Your task to perform on an android device: Open Youtube and go to "Your channel" Image 0: 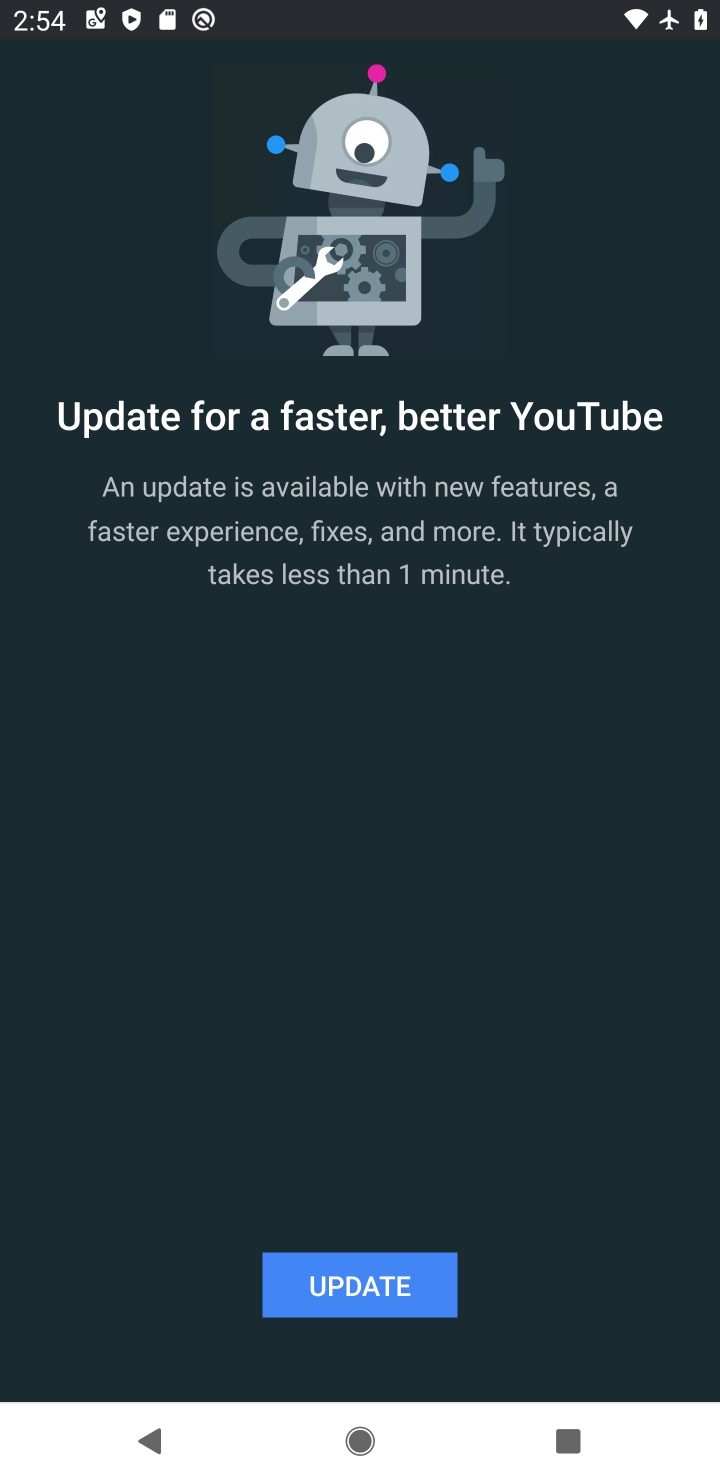
Step 0: press home button
Your task to perform on an android device: Open Youtube and go to "Your channel" Image 1: 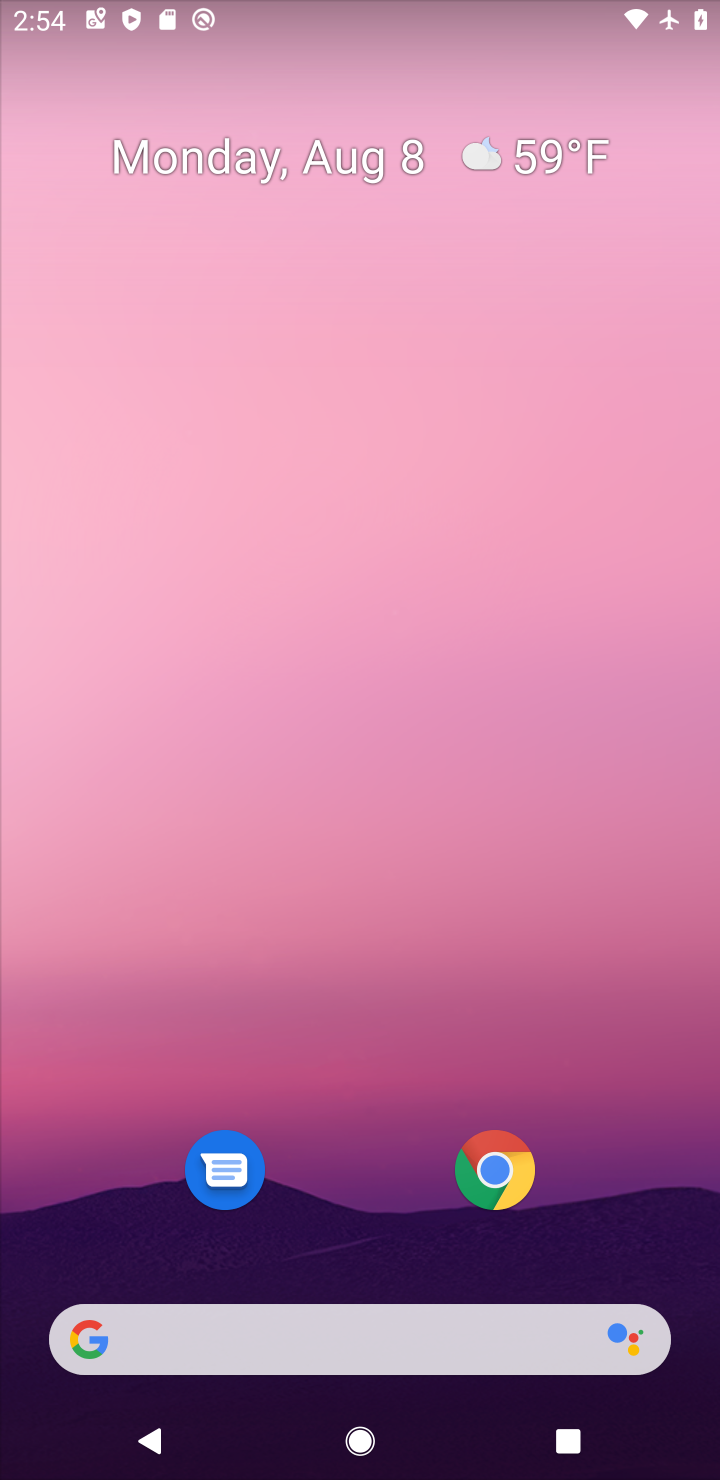
Step 1: drag from (373, 784) to (390, 360)
Your task to perform on an android device: Open Youtube and go to "Your channel" Image 2: 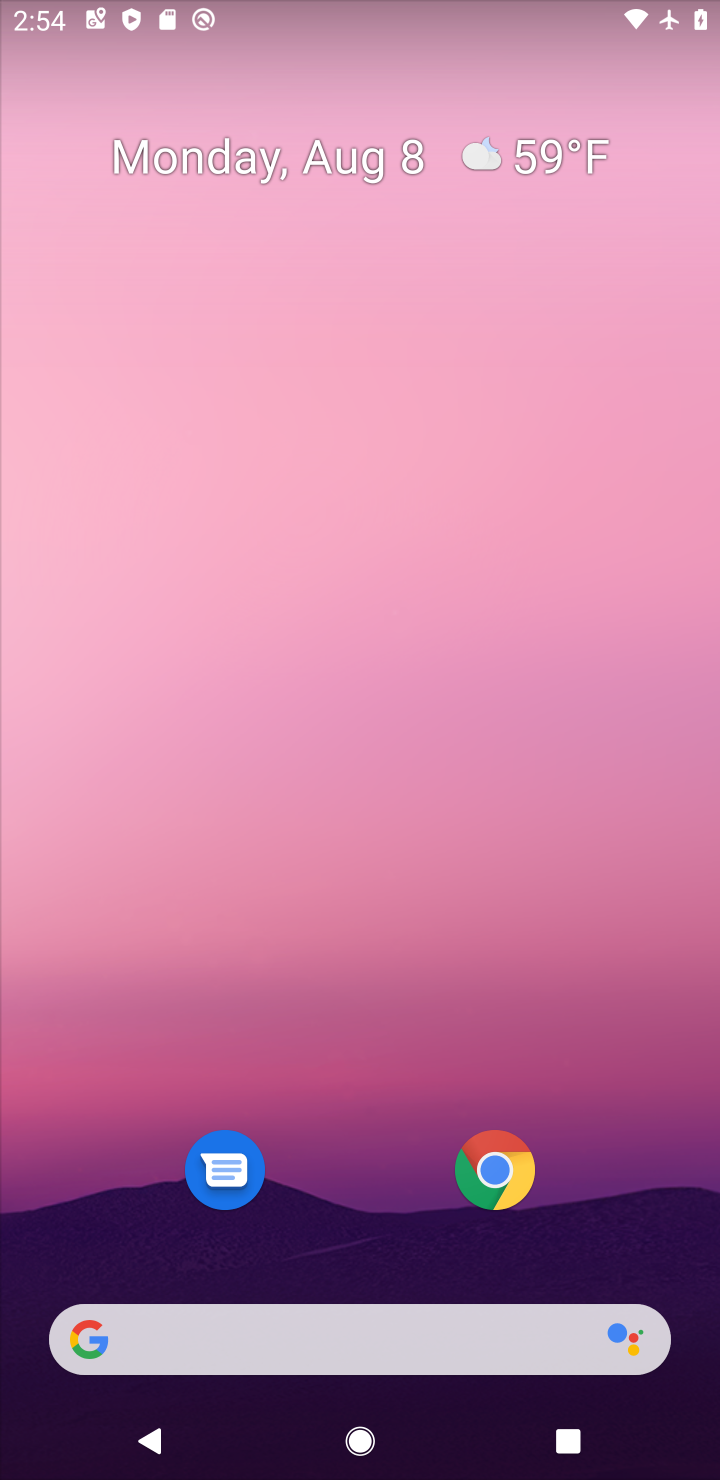
Step 2: drag from (372, 1059) to (393, 210)
Your task to perform on an android device: Open Youtube and go to "Your channel" Image 3: 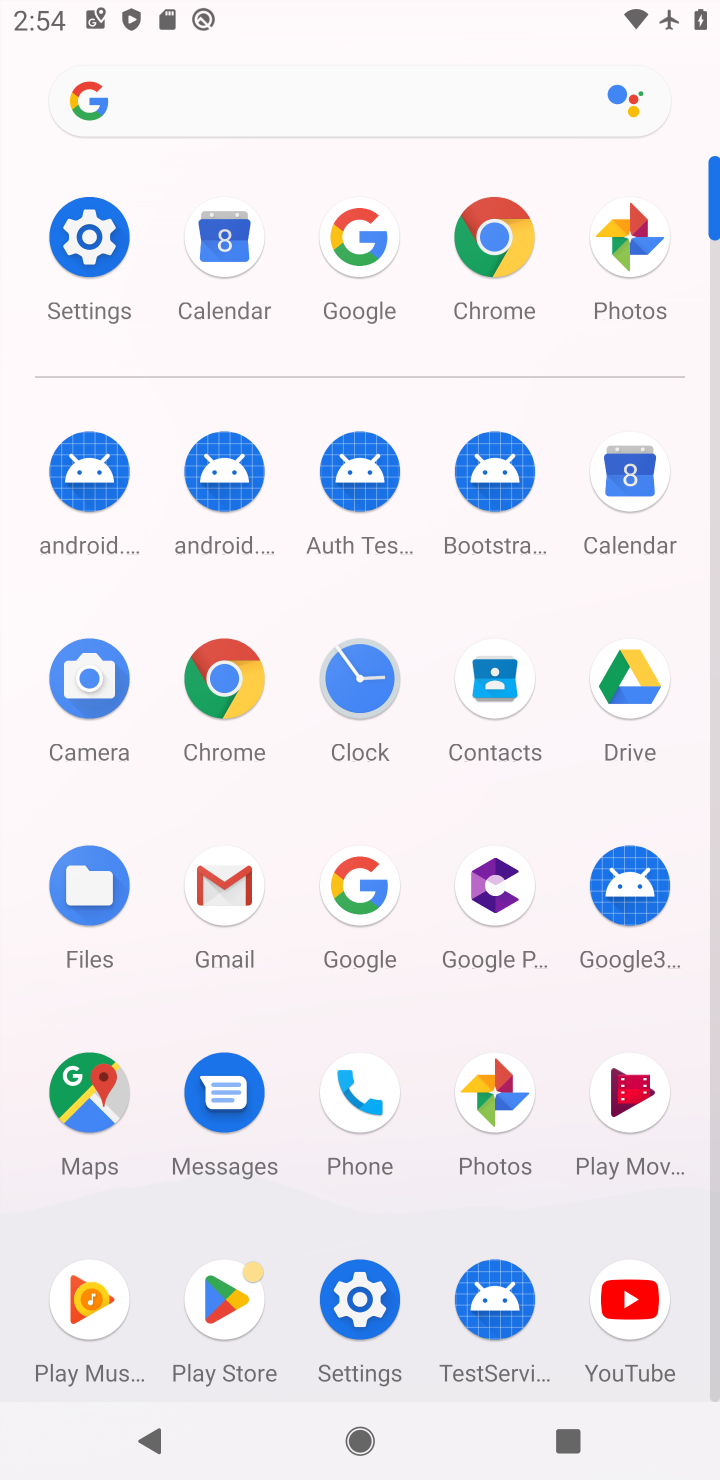
Step 3: click (620, 1267)
Your task to perform on an android device: Open Youtube and go to "Your channel" Image 4: 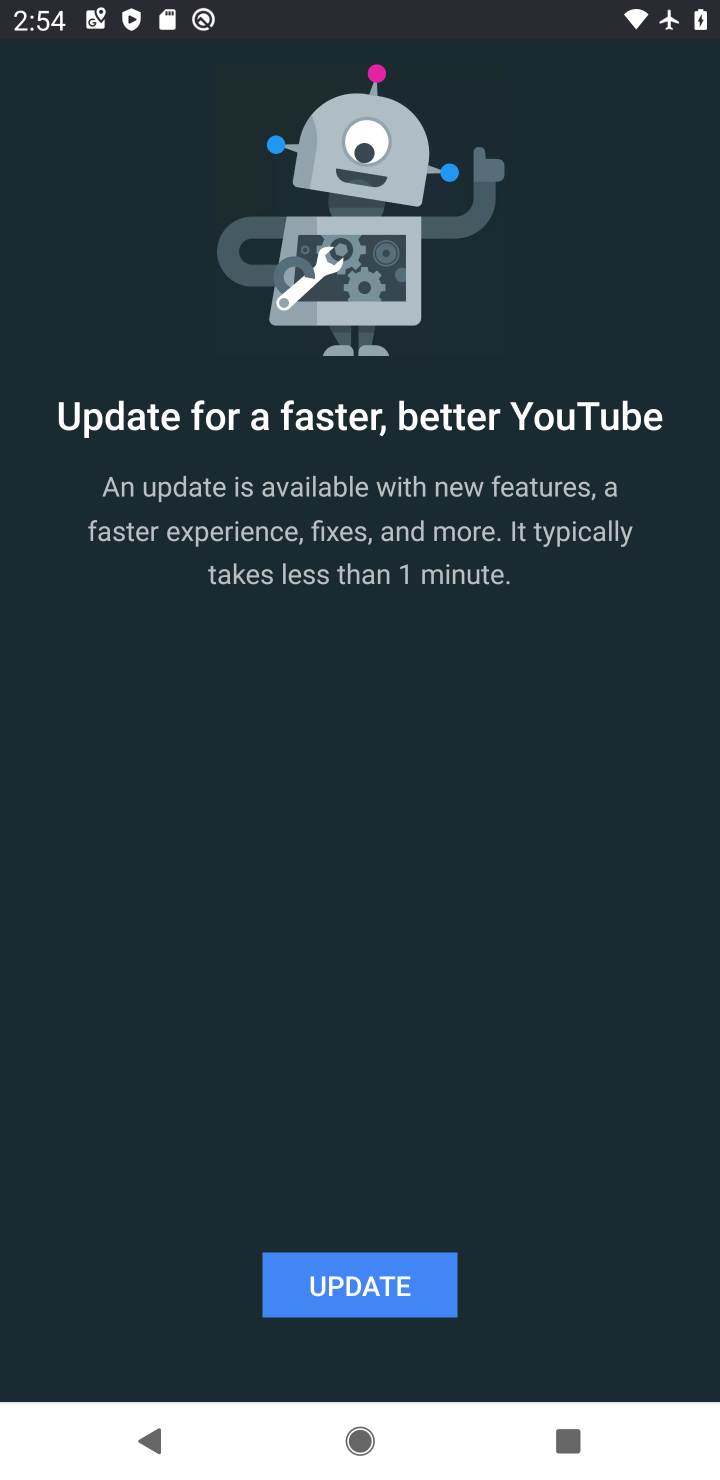
Step 4: click (441, 1282)
Your task to perform on an android device: Open Youtube and go to "Your channel" Image 5: 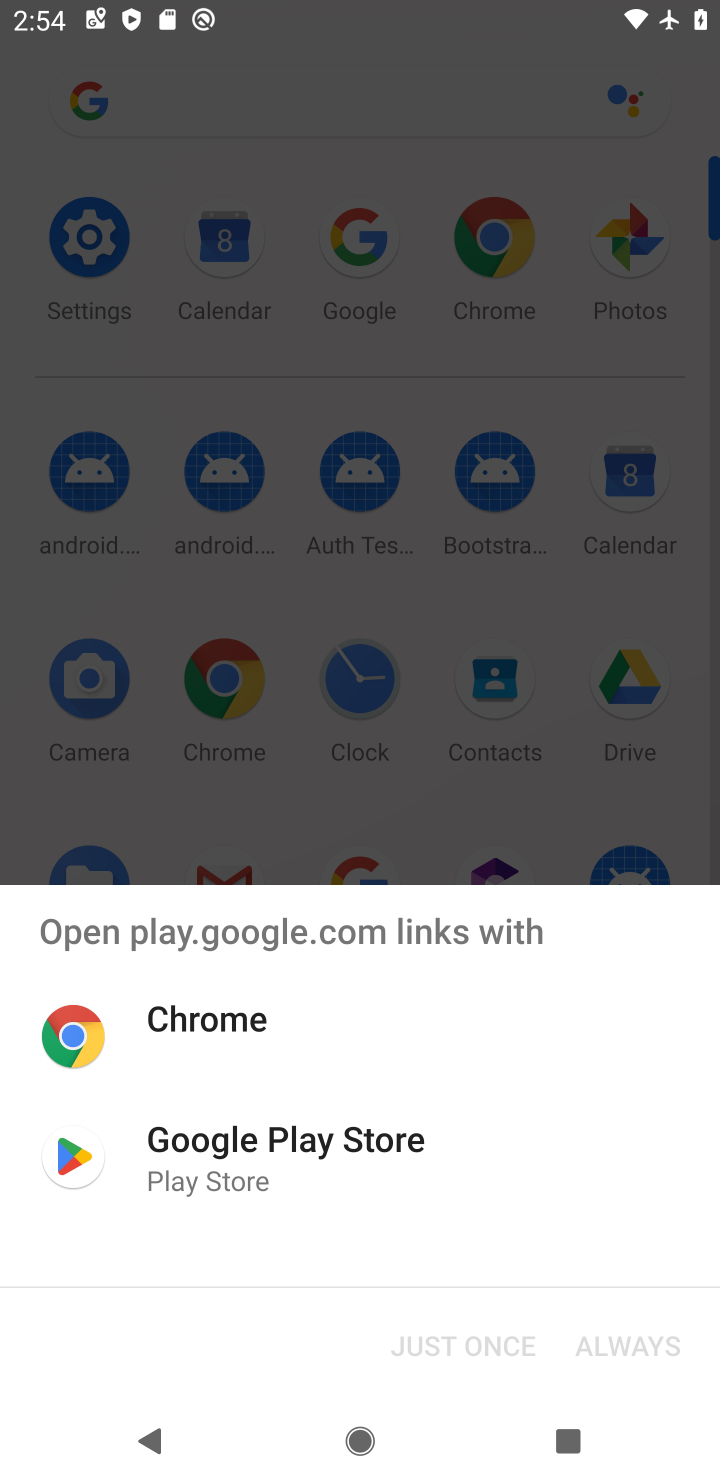
Step 5: click (196, 1139)
Your task to perform on an android device: Open Youtube and go to "Your channel" Image 6: 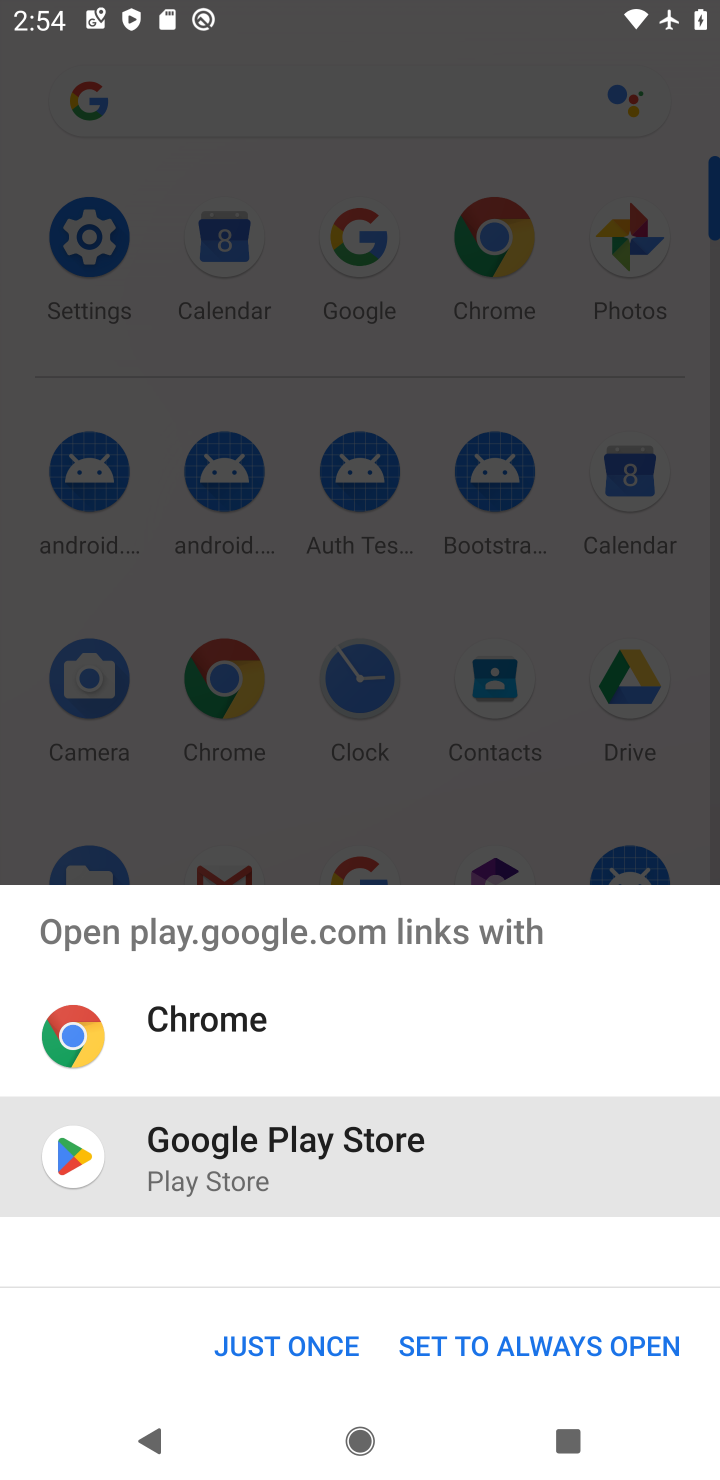
Step 6: click (259, 1351)
Your task to perform on an android device: Open Youtube and go to "Your channel" Image 7: 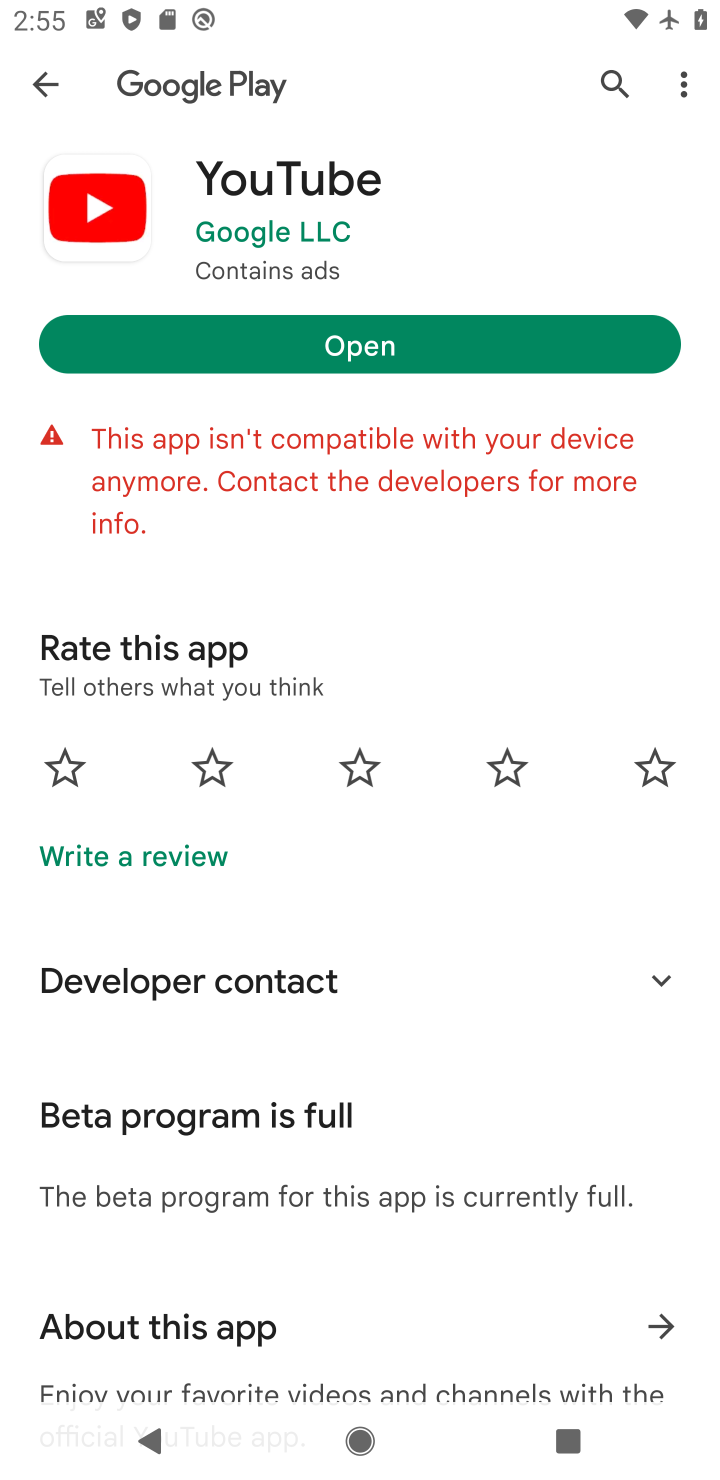
Step 7: click (457, 356)
Your task to perform on an android device: Open Youtube and go to "Your channel" Image 8: 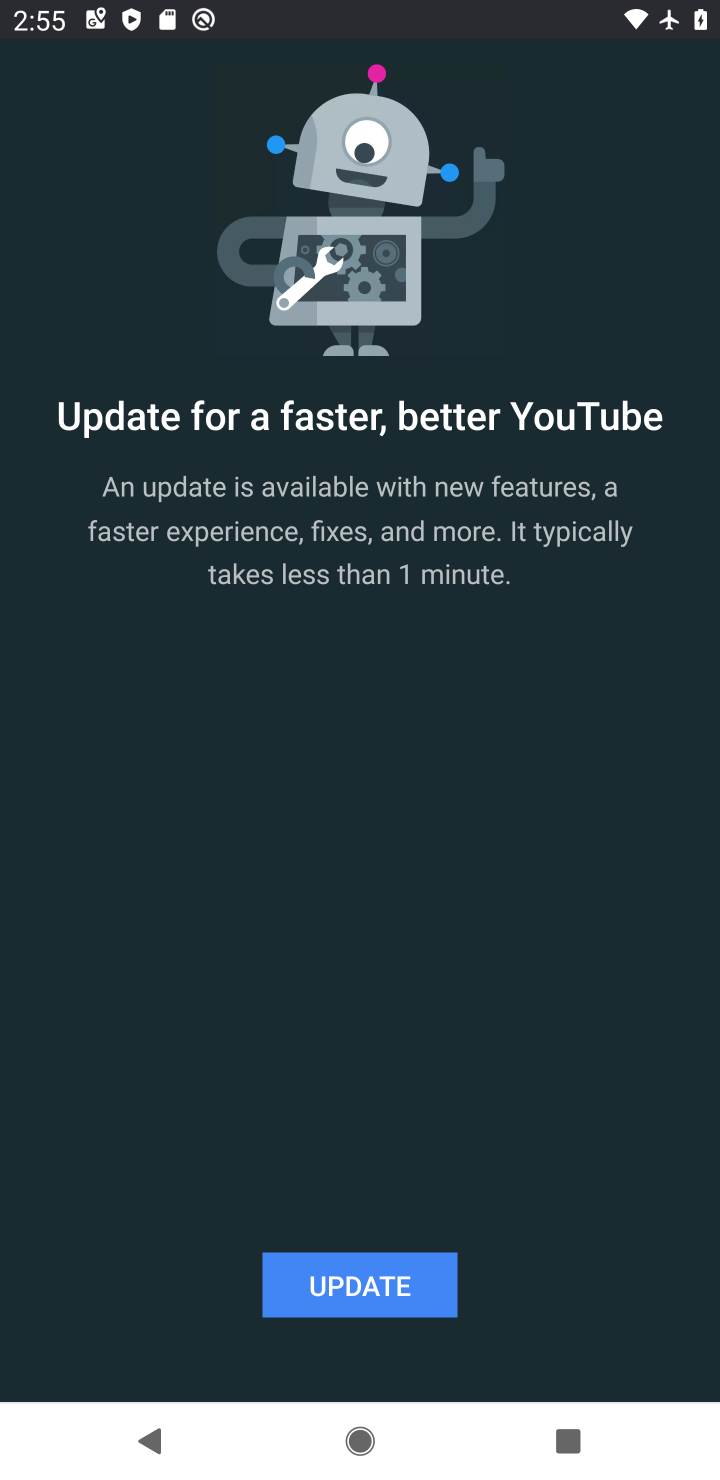
Step 8: click (401, 1273)
Your task to perform on an android device: Open Youtube and go to "Your channel" Image 9: 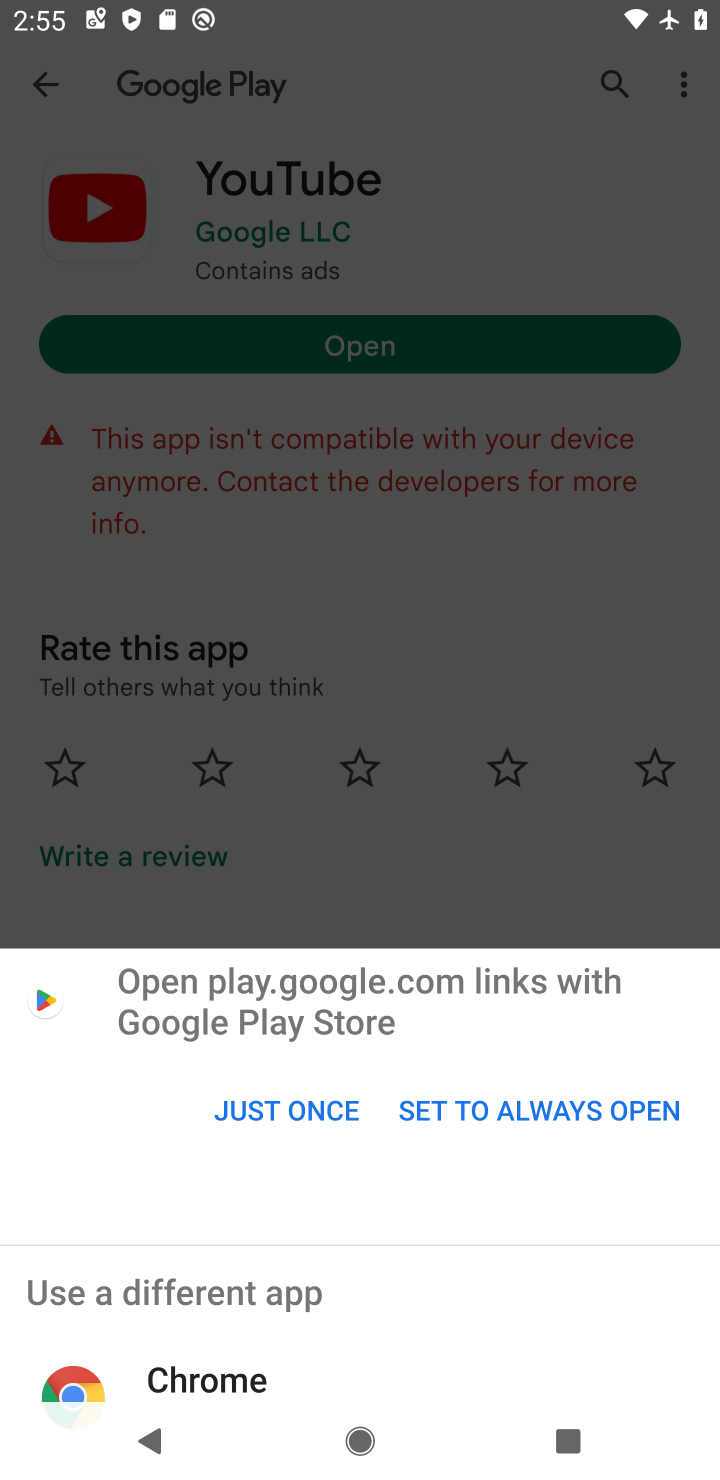
Step 9: task complete